Your task to perform on an android device: Open Amazon Image 0: 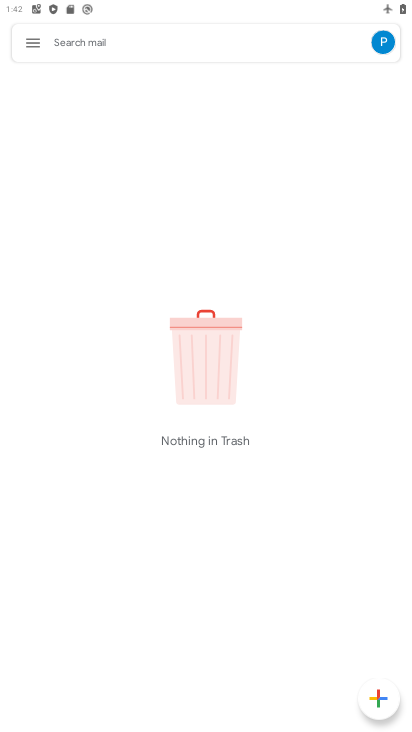
Step 0: press home button
Your task to perform on an android device: Open Amazon Image 1: 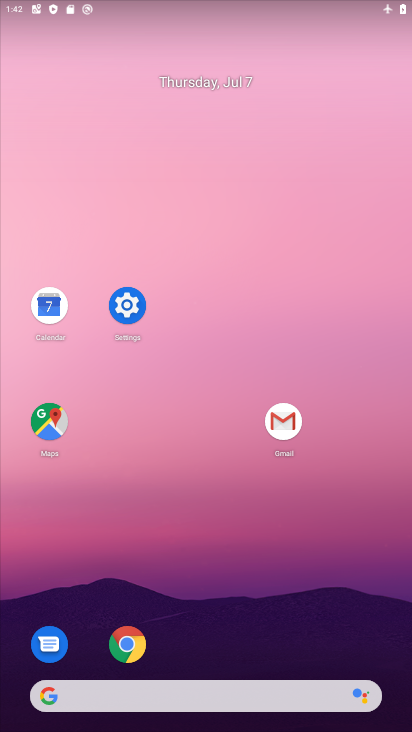
Step 1: click (128, 641)
Your task to perform on an android device: Open Amazon Image 2: 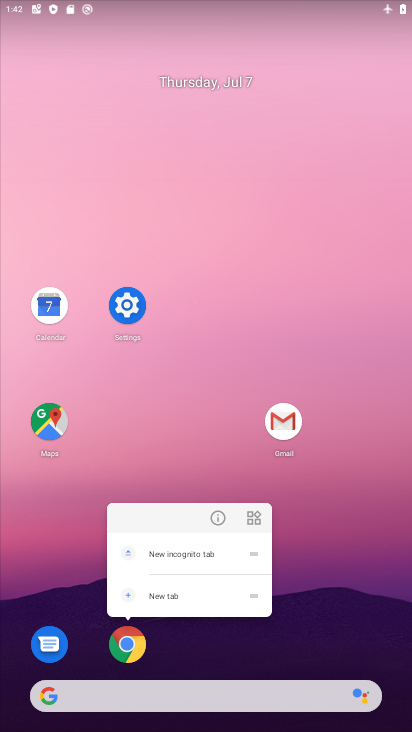
Step 2: click (130, 641)
Your task to perform on an android device: Open Amazon Image 3: 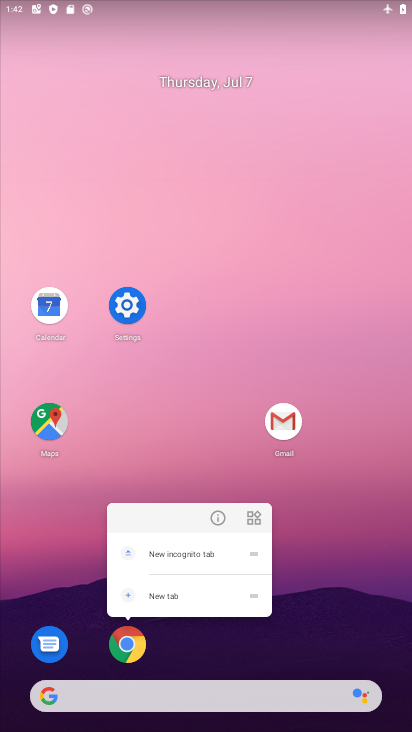
Step 3: click (130, 641)
Your task to perform on an android device: Open Amazon Image 4: 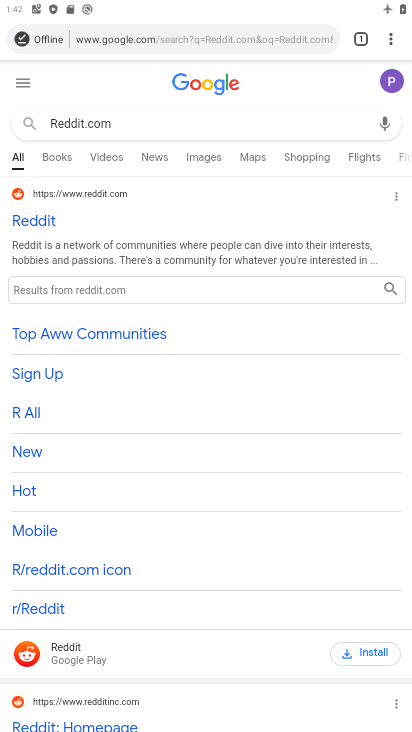
Step 4: click (278, 39)
Your task to perform on an android device: Open Amazon Image 5: 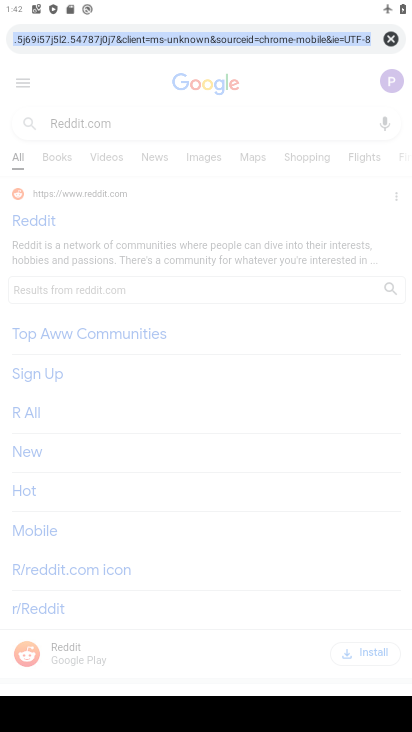
Step 5: click (386, 35)
Your task to perform on an android device: Open Amazon Image 6: 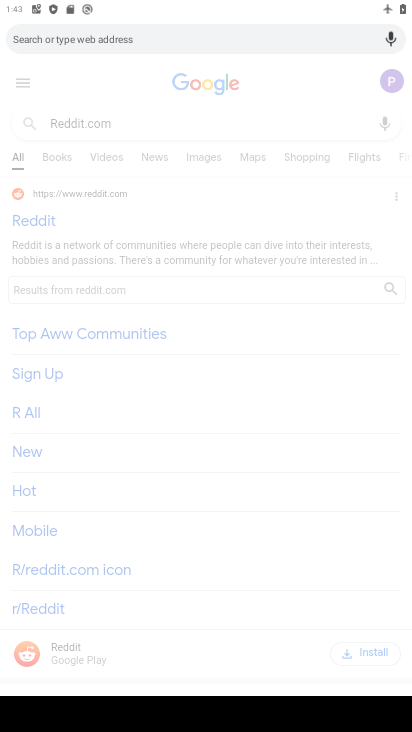
Step 6: type "Amazon"
Your task to perform on an android device: Open Amazon Image 7: 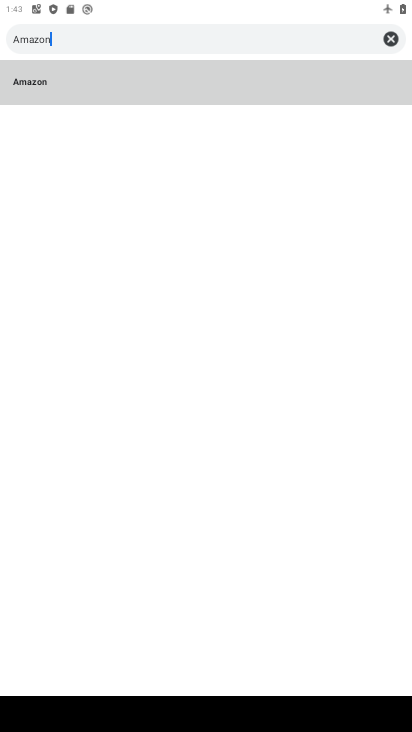
Step 7: click (202, 89)
Your task to perform on an android device: Open Amazon Image 8: 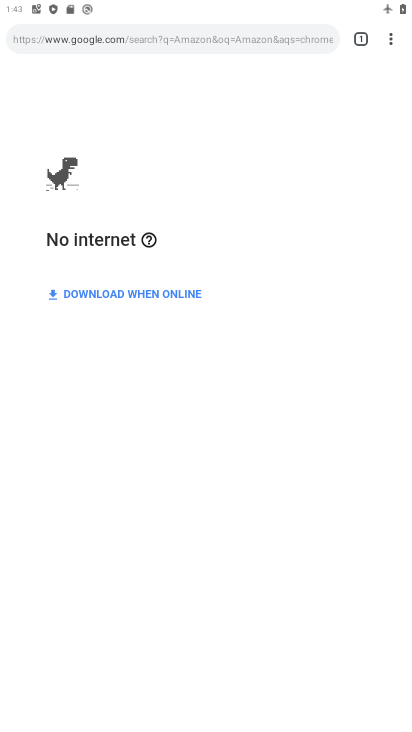
Step 8: task complete